Your task to perform on an android device: Go to battery settings Image 0: 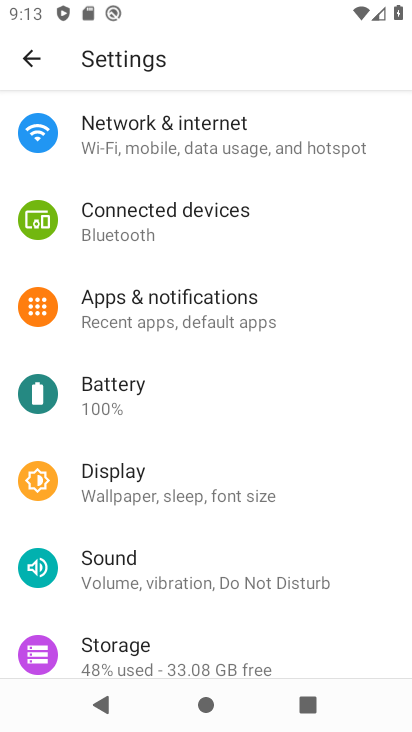
Step 0: click (198, 417)
Your task to perform on an android device: Go to battery settings Image 1: 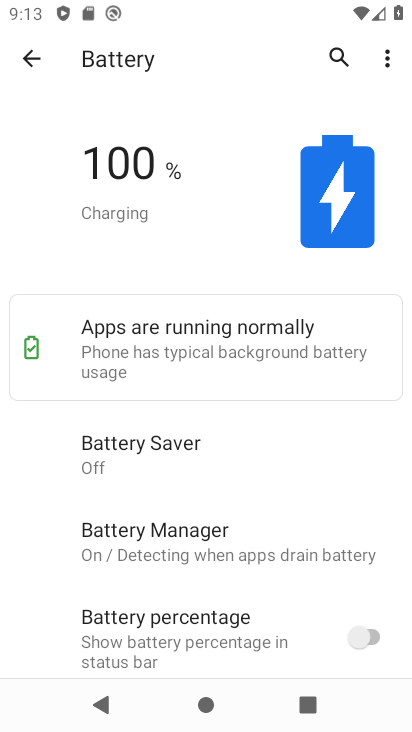
Step 1: task complete